Your task to perform on an android device: Open calendar and show me the second week of next month Image 0: 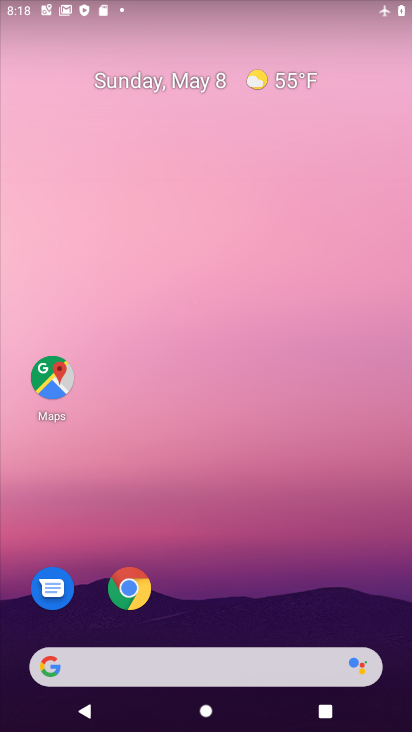
Step 0: drag from (294, 635) to (251, 111)
Your task to perform on an android device: Open calendar and show me the second week of next month Image 1: 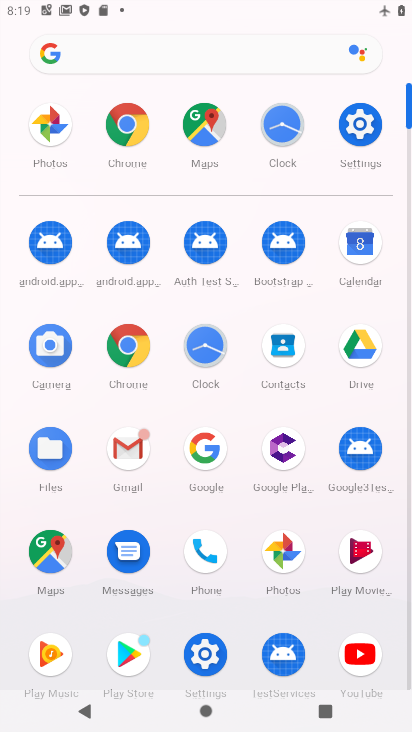
Step 1: click (353, 253)
Your task to perform on an android device: Open calendar and show me the second week of next month Image 2: 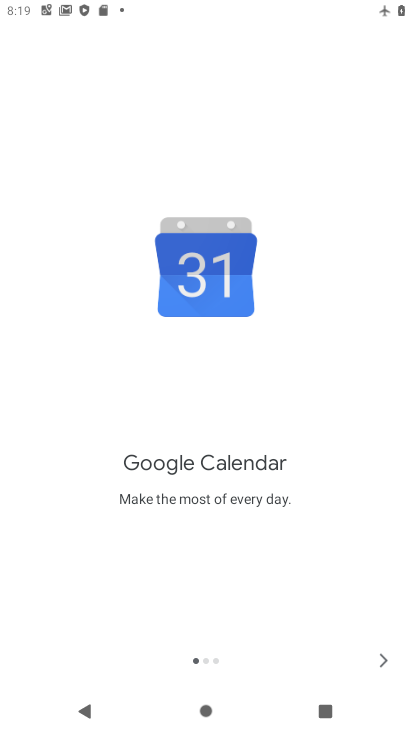
Step 2: click (389, 670)
Your task to perform on an android device: Open calendar and show me the second week of next month Image 3: 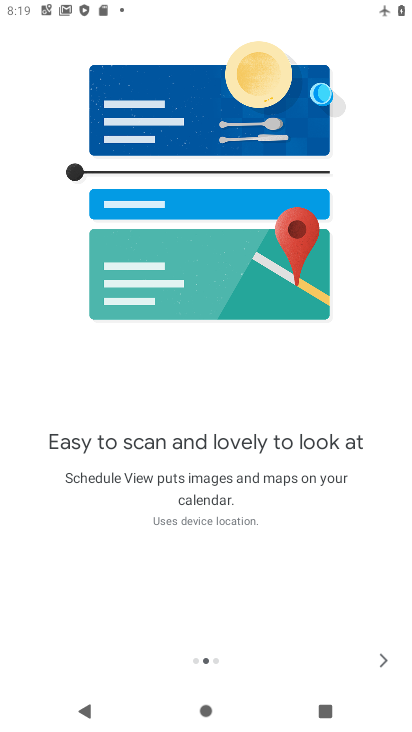
Step 3: click (389, 670)
Your task to perform on an android device: Open calendar and show me the second week of next month Image 4: 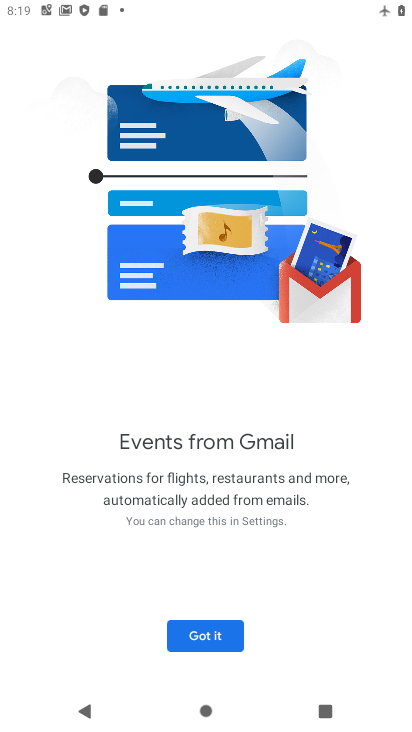
Step 4: click (212, 627)
Your task to perform on an android device: Open calendar and show me the second week of next month Image 5: 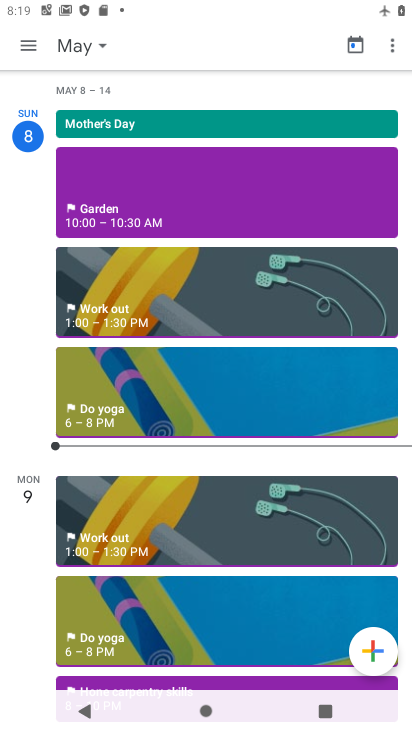
Step 5: click (72, 45)
Your task to perform on an android device: Open calendar and show me the second week of next month Image 6: 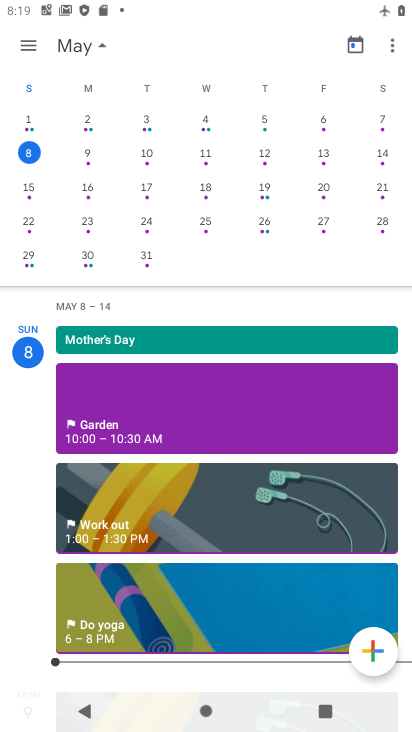
Step 6: drag from (314, 188) to (3, 133)
Your task to perform on an android device: Open calendar and show me the second week of next month Image 7: 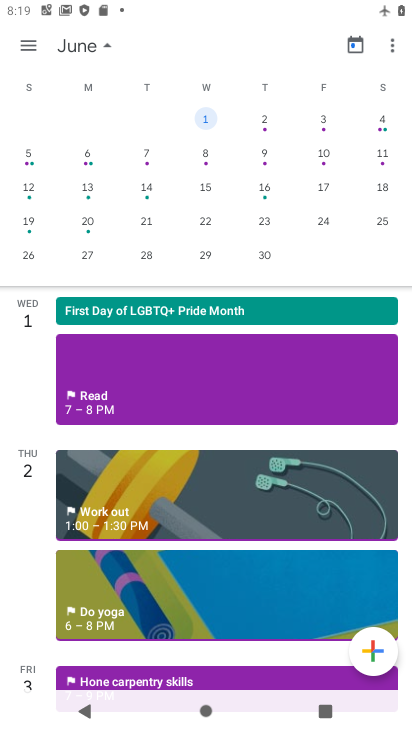
Step 7: click (30, 193)
Your task to perform on an android device: Open calendar and show me the second week of next month Image 8: 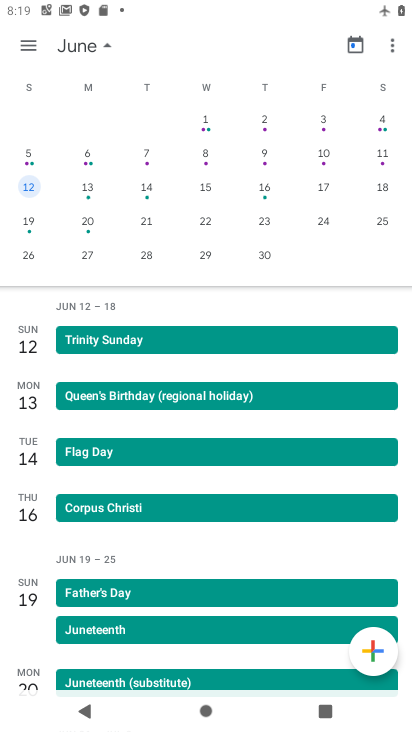
Step 8: task complete